Your task to perform on an android device: set the stopwatch Image 0: 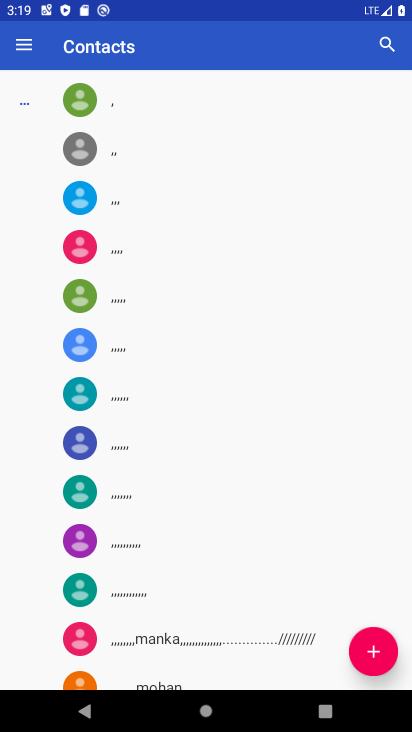
Step 0: press home button
Your task to perform on an android device: set the stopwatch Image 1: 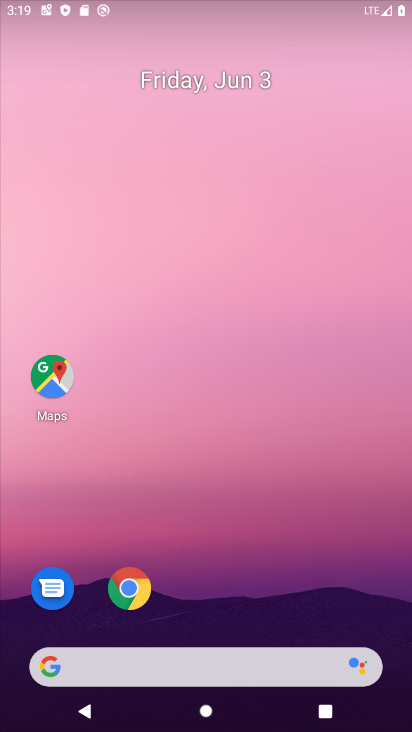
Step 1: drag from (88, 492) to (282, 128)
Your task to perform on an android device: set the stopwatch Image 2: 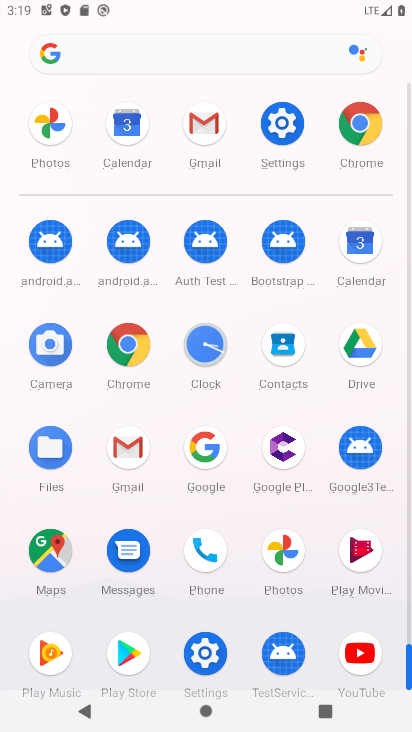
Step 2: click (220, 346)
Your task to perform on an android device: set the stopwatch Image 3: 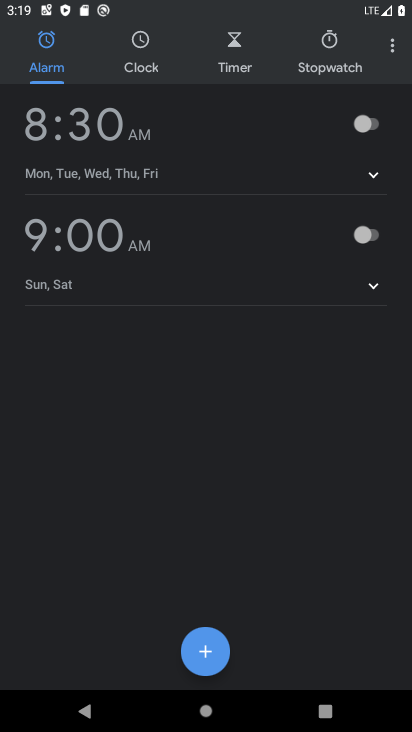
Step 3: click (331, 61)
Your task to perform on an android device: set the stopwatch Image 4: 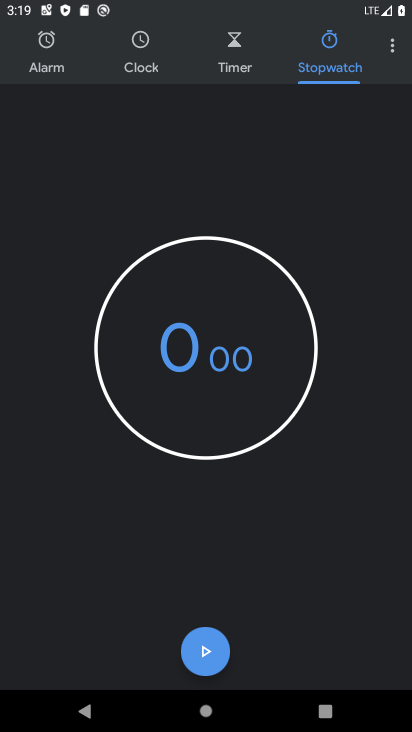
Step 4: click (188, 659)
Your task to perform on an android device: set the stopwatch Image 5: 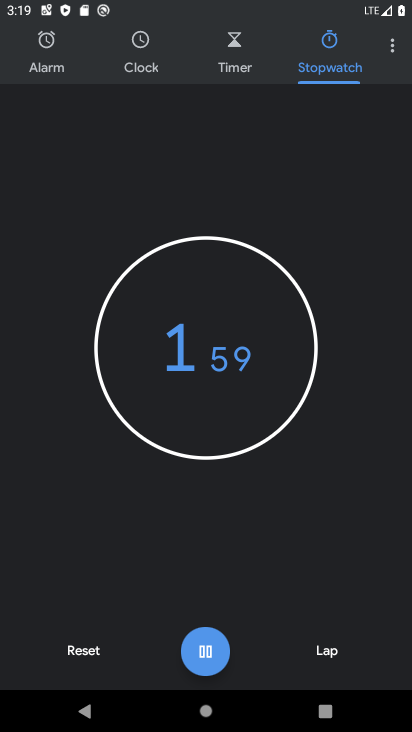
Step 5: task complete